Your task to perform on an android device: change the clock display to digital Image 0: 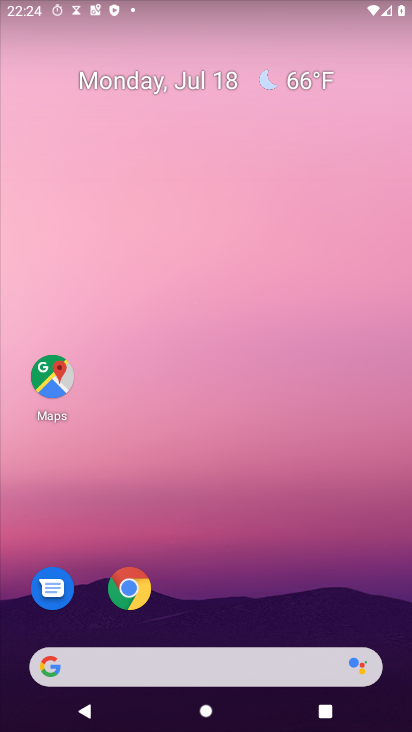
Step 0: press home button
Your task to perform on an android device: change the clock display to digital Image 1: 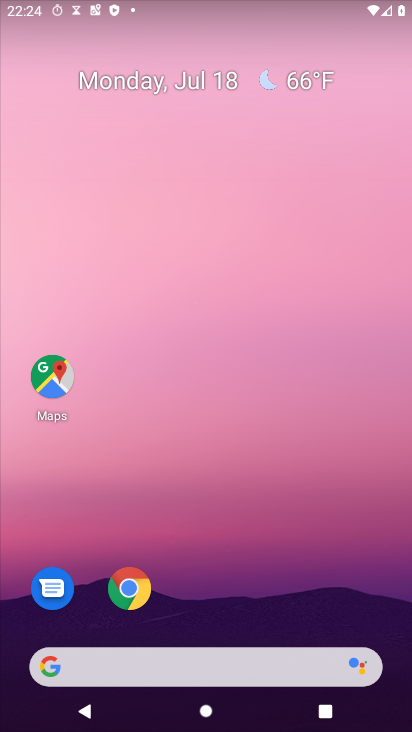
Step 1: drag from (237, 678) to (353, 122)
Your task to perform on an android device: change the clock display to digital Image 2: 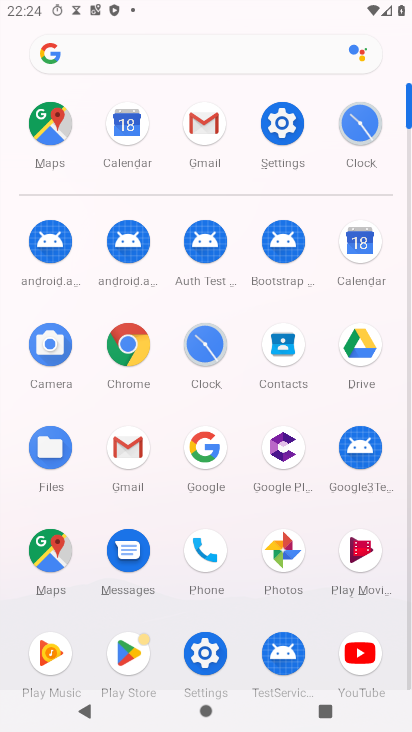
Step 2: click (208, 352)
Your task to perform on an android device: change the clock display to digital Image 3: 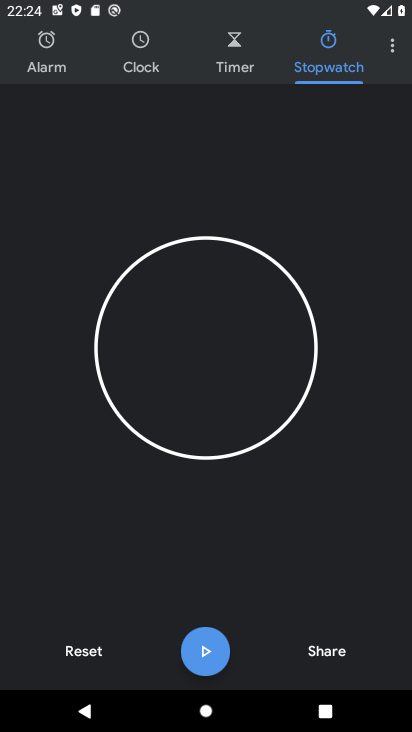
Step 3: click (396, 43)
Your task to perform on an android device: change the clock display to digital Image 4: 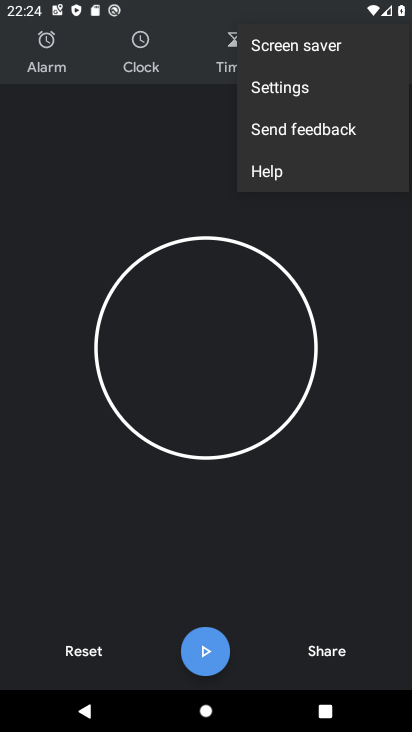
Step 4: click (295, 89)
Your task to perform on an android device: change the clock display to digital Image 5: 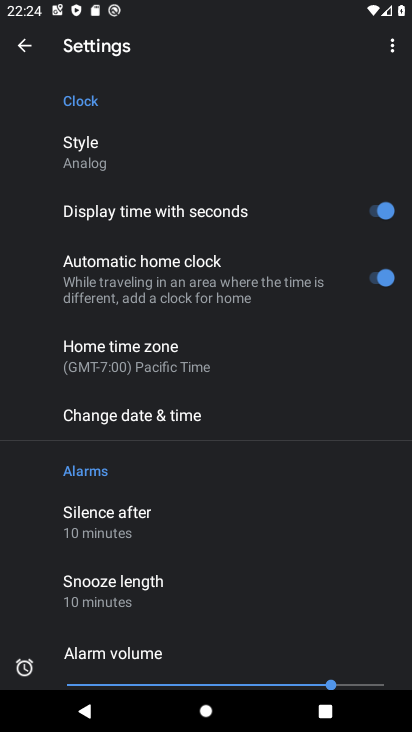
Step 5: click (86, 150)
Your task to perform on an android device: change the clock display to digital Image 6: 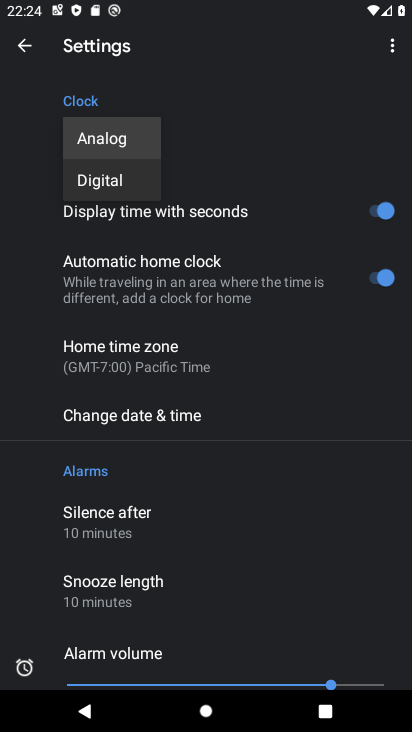
Step 6: click (94, 184)
Your task to perform on an android device: change the clock display to digital Image 7: 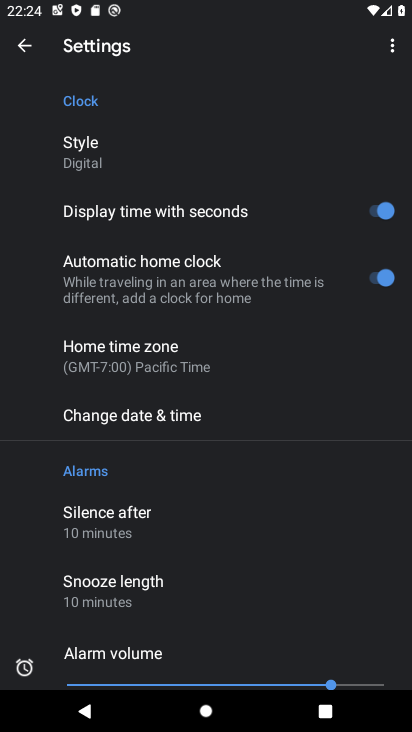
Step 7: task complete